Your task to perform on an android device: Go to ESPN.com Image 0: 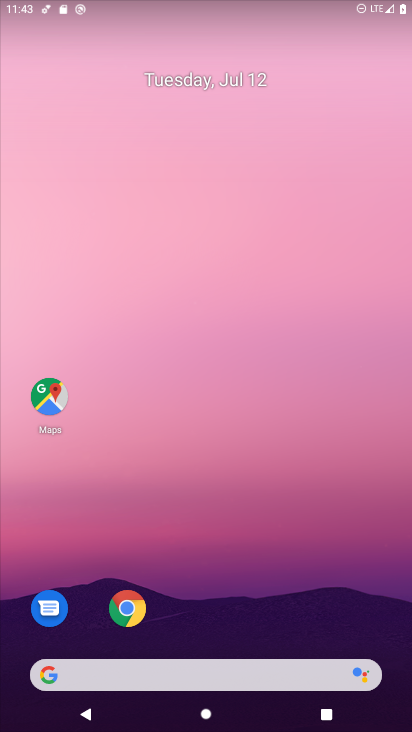
Step 0: click (173, 668)
Your task to perform on an android device: Go to ESPN.com Image 1: 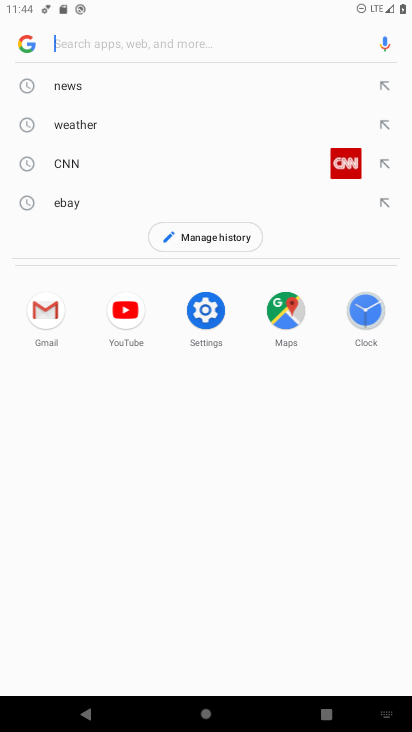
Step 1: type "espn"
Your task to perform on an android device: Go to ESPN.com Image 2: 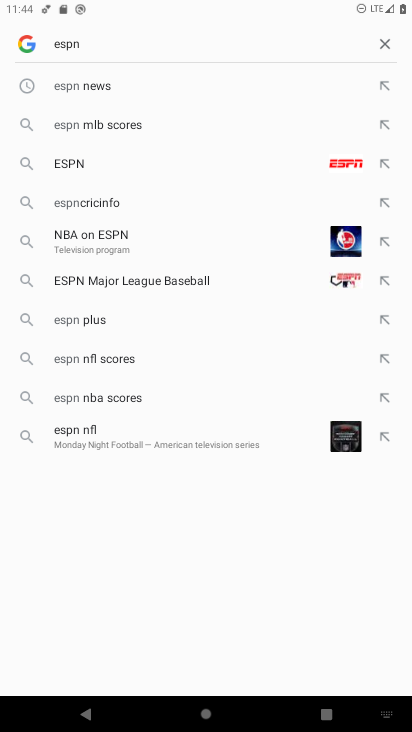
Step 2: click (305, 85)
Your task to perform on an android device: Go to ESPN.com Image 3: 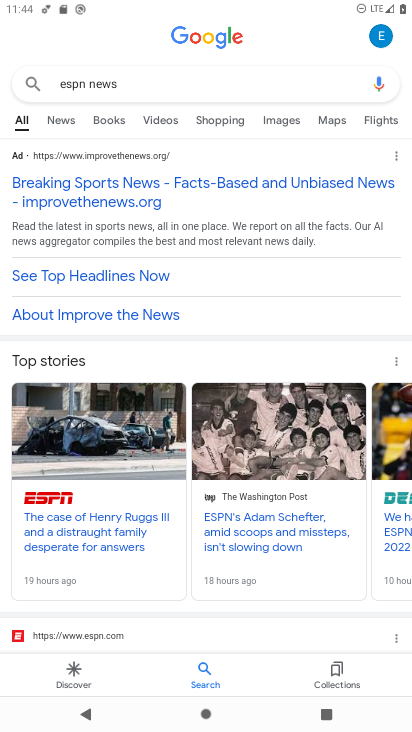
Step 3: click (104, 526)
Your task to perform on an android device: Go to ESPN.com Image 4: 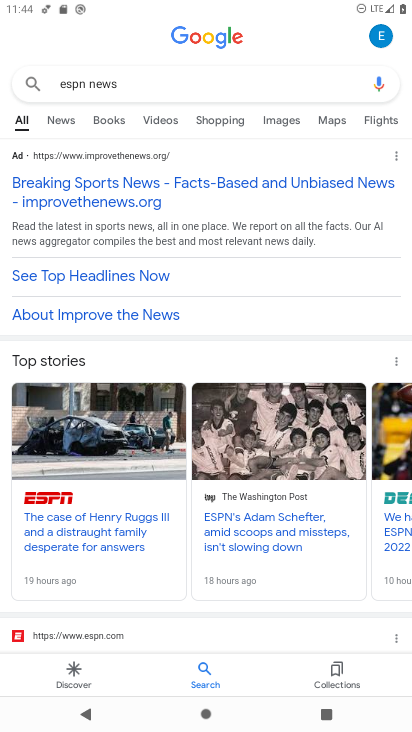
Step 4: task complete